Your task to perform on an android device: change notification settings in the gmail app Image 0: 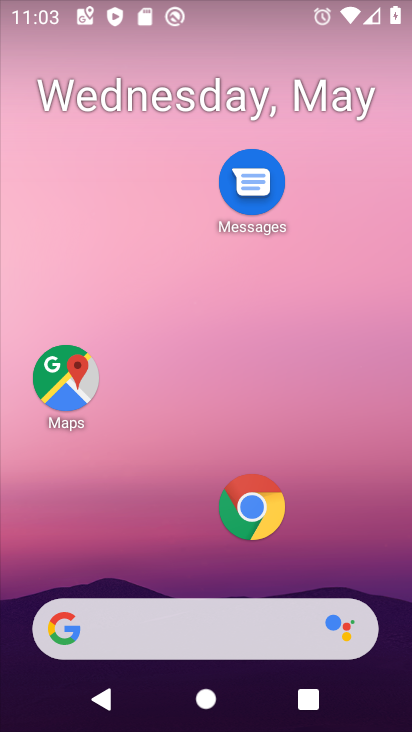
Step 0: press home button
Your task to perform on an android device: change notification settings in the gmail app Image 1: 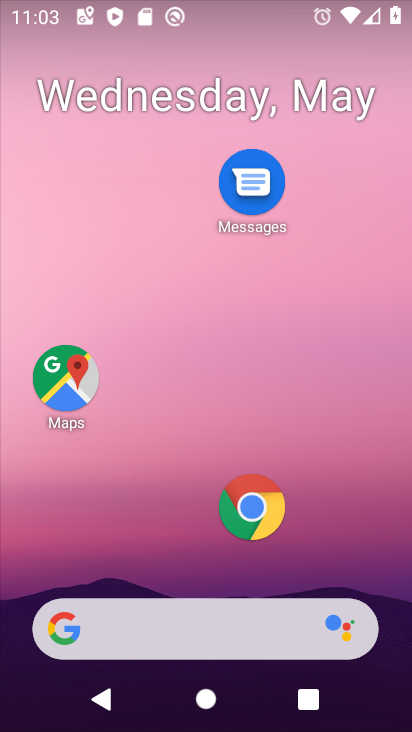
Step 1: drag from (194, 570) to (194, 153)
Your task to perform on an android device: change notification settings in the gmail app Image 2: 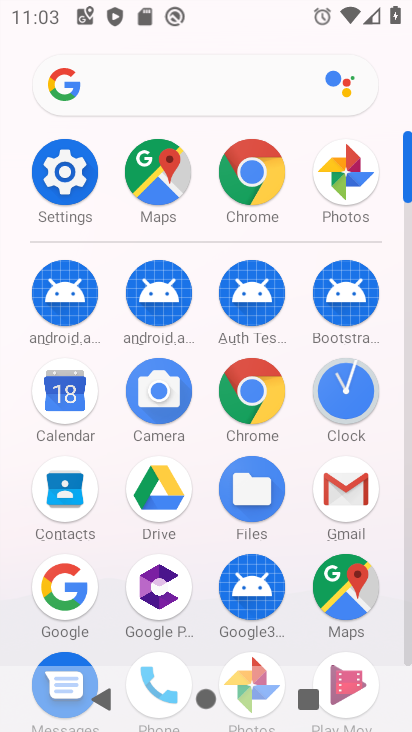
Step 2: click (343, 481)
Your task to perform on an android device: change notification settings in the gmail app Image 3: 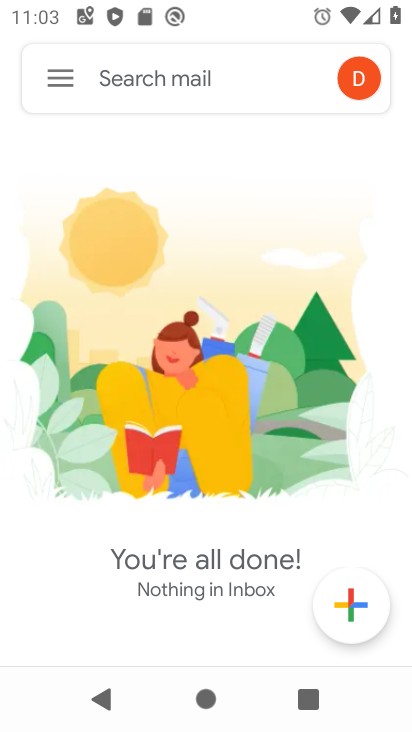
Step 3: click (61, 67)
Your task to perform on an android device: change notification settings in the gmail app Image 4: 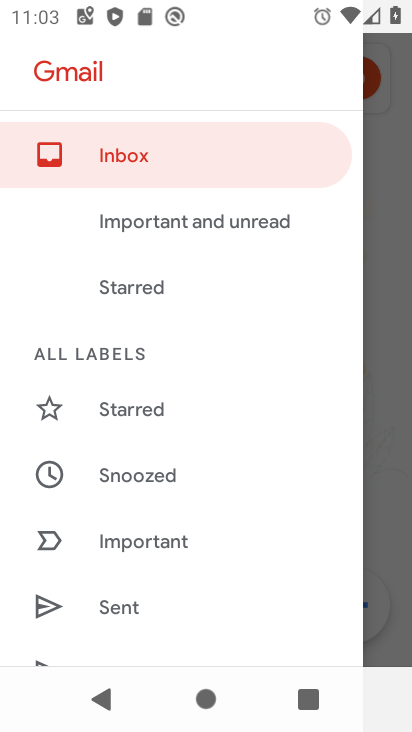
Step 4: drag from (183, 580) to (193, 151)
Your task to perform on an android device: change notification settings in the gmail app Image 5: 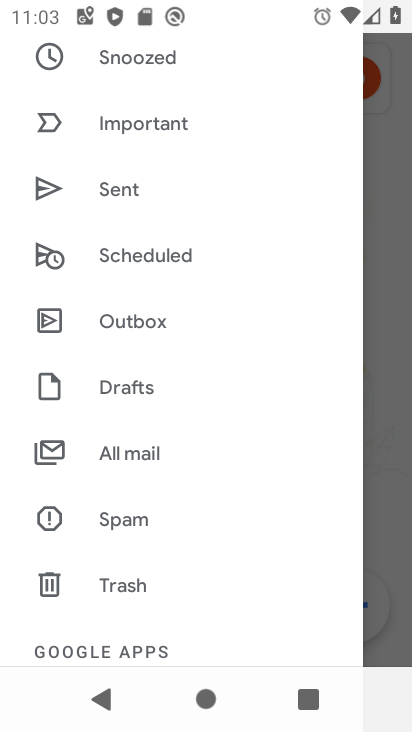
Step 5: drag from (174, 625) to (216, 159)
Your task to perform on an android device: change notification settings in the gmail app Image 6: 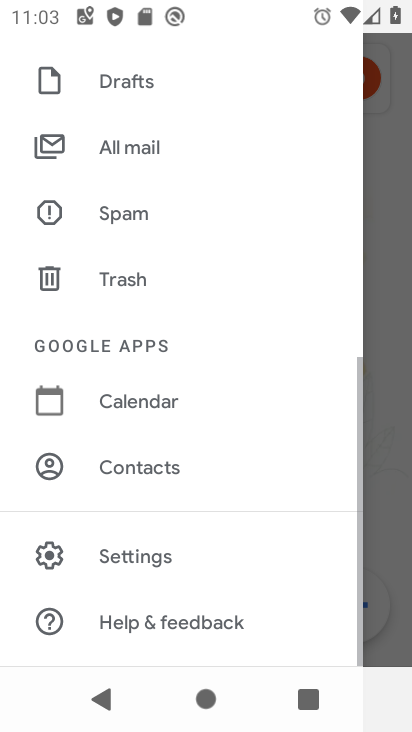
Step 6: click (183, 549)
Your task to perform on an android device: change notification settings in the gmail app Image 7: 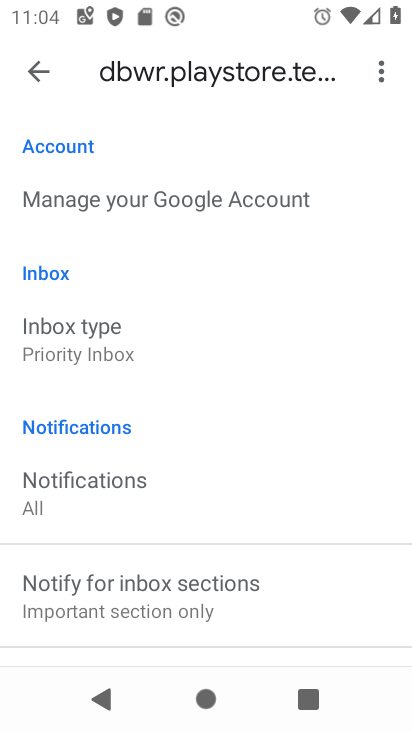
Step 7: click (47, 73)
Your task to perform on an android device: change notification settings in the gmail app Image 8: 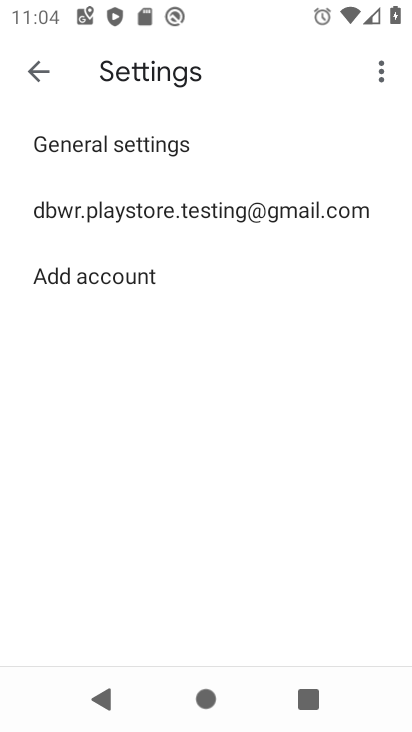
Step 8: click (182, 135)
Your task to perform on an android device: change notification settings in the gmail app Image 9: 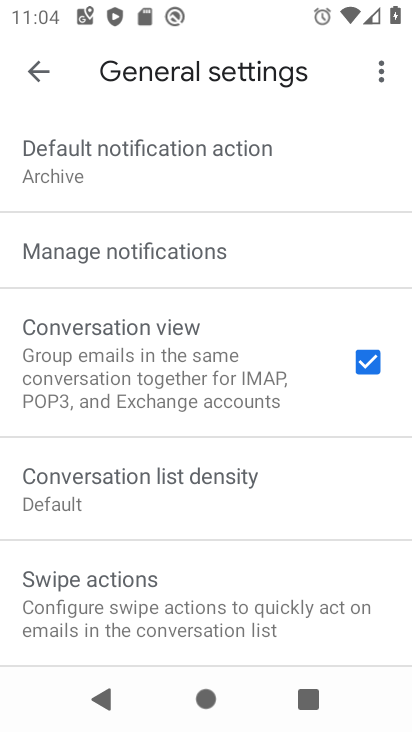
Step 9: click (232, 249)
Your task to perform on an android device: change notification settings in the gmail app Image 10: 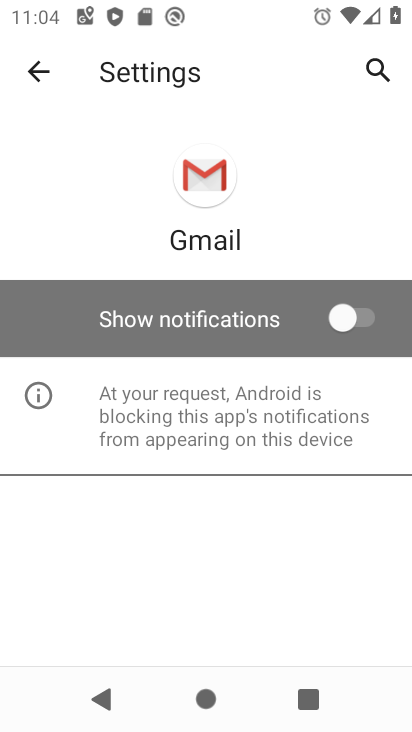
Step 10: click (364, 308)
Your task to perform on an android device: change notification settings in the gmail app Image 11: 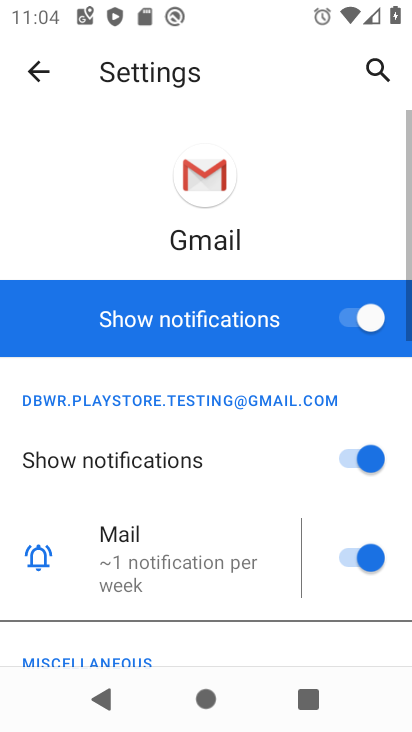
Step 11: task complete